Your task to perform on an android device: Open the map Image 0: 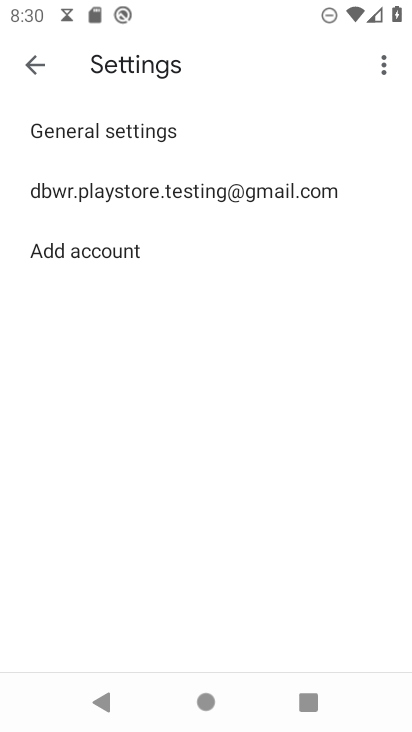
Step 0: press home button
Your task to perform on an android device: Open the map Image 1: 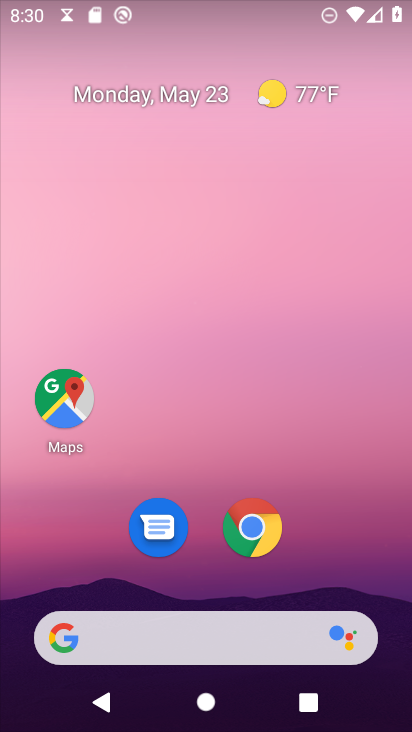
Step 1: drag from (287, 662) to (248, 293)
Your task to perform on an android device: Open the map Image 2: 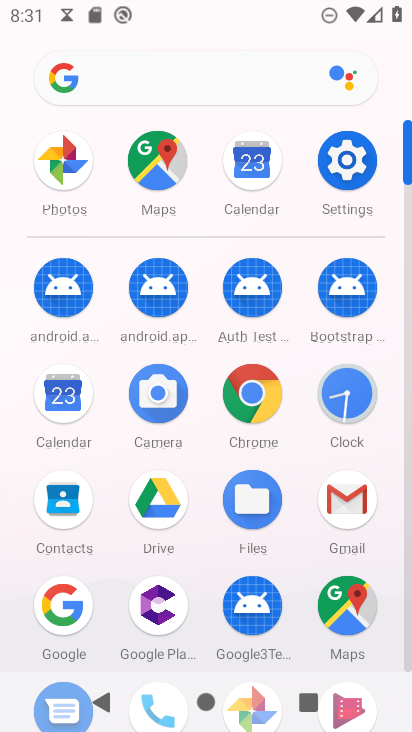
Step 2: click (156, 179)
Your task to perform on an android device: Open the map Image 3: 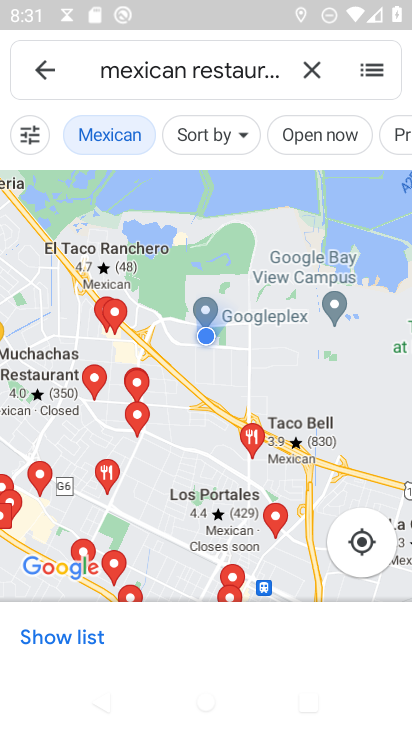
Step 3: click (45, 64)
Your task to perform on an android device: Open the map Image 4: 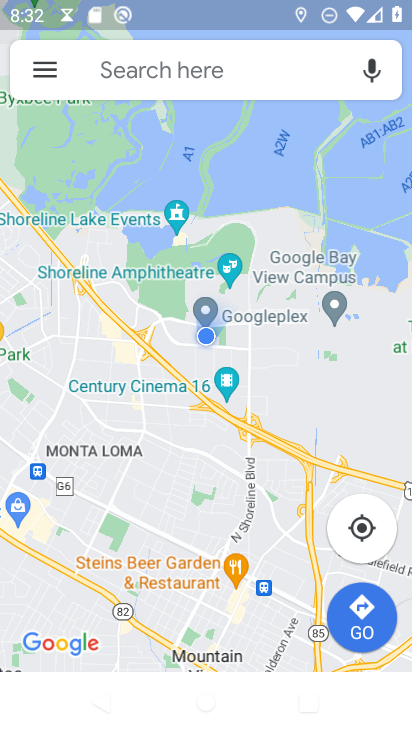
Step 4: task complete